Your task to perform on an android device: Open sound settings Image 0: 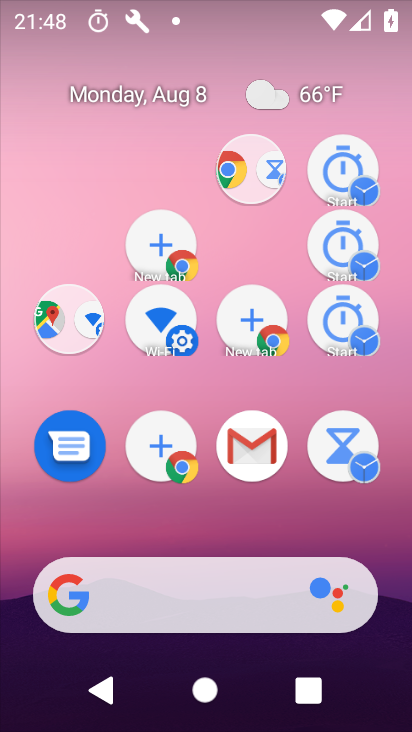
Step 0: press back button
Your task to perform on an android device: Open sound settings Image 1: 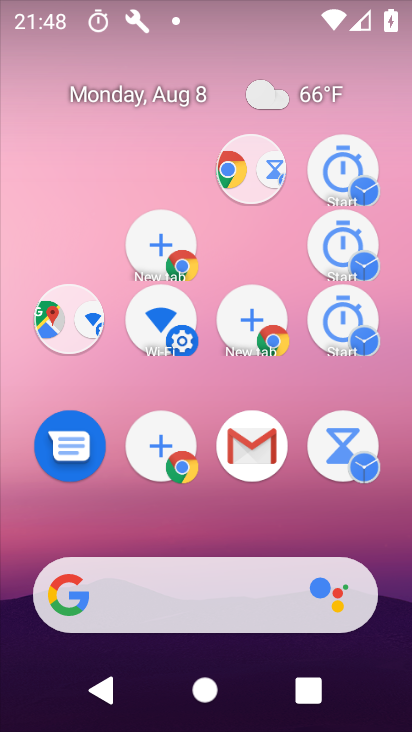
Step 1: drag from (166, 2) to (195, 143)
Your task to perform on an android device: Open sound settings Image 2: 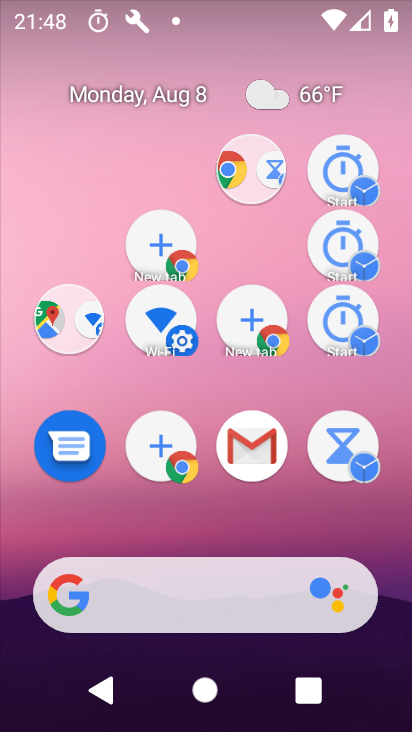
Step 2: drag from (269, 425) to (222, 83)
Your task to perform on an android device: Open sound settings Image 3: 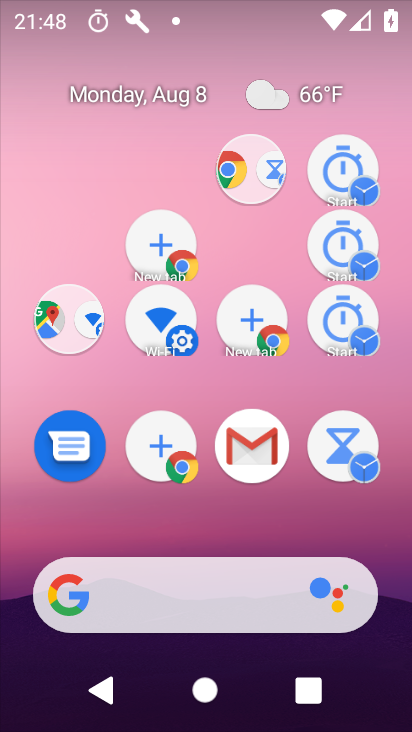
Step 3: drag from (260, 529) to (230, 120)
Your task to perform on an android device: Open sound settings Image 4: 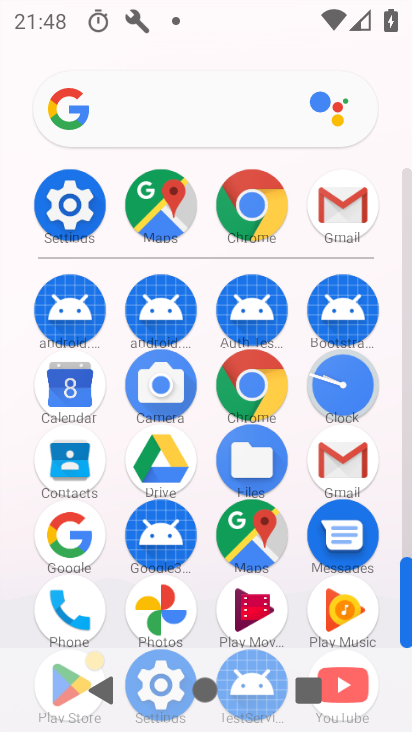
Step 4: drag from (272, 422) to (253, 80)
Your task to perform on an android device: Open sound settings Image 5: 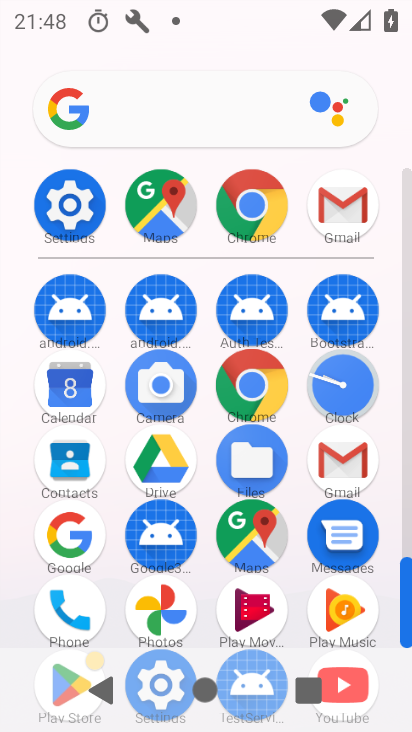
Step 5: drag from (310, 478) to (242, 58)
Your task to perform on an android device: Open sound settings Image 6: 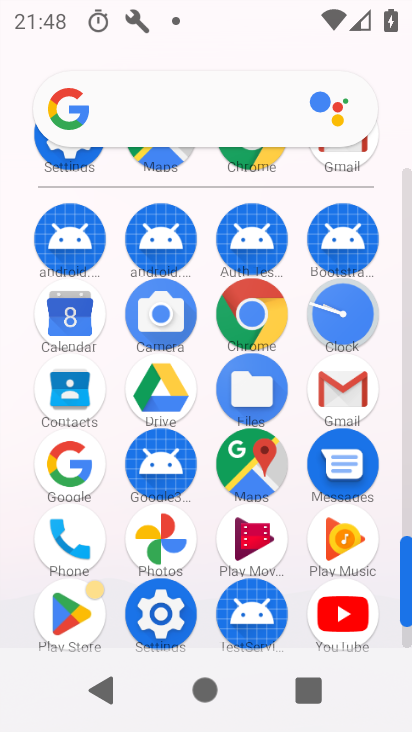
Step 6: click (63, 201)
Your task to perform on an android device: Open sound settings Image 7: 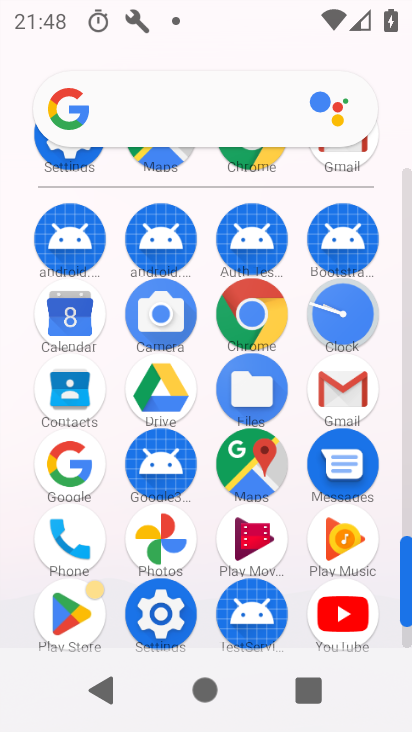
Step 7: click (156, 609)
Your task to perform on an android device: Open sound settings Image 8: 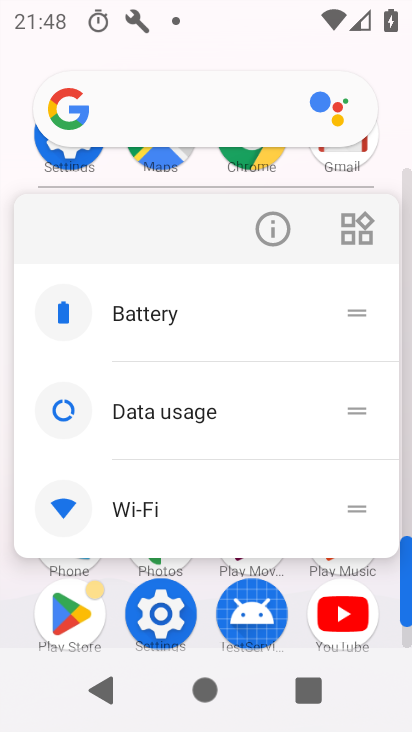
Step 8: click (161, 613)
Your task to perform on an android device: Open sound settings Image 9: 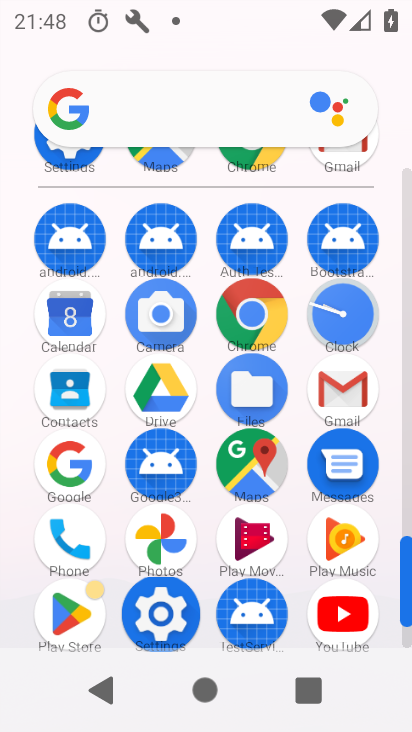
Step 9: click (162, 613)
Your task to perform on an android device: Open sound settings Image 10: 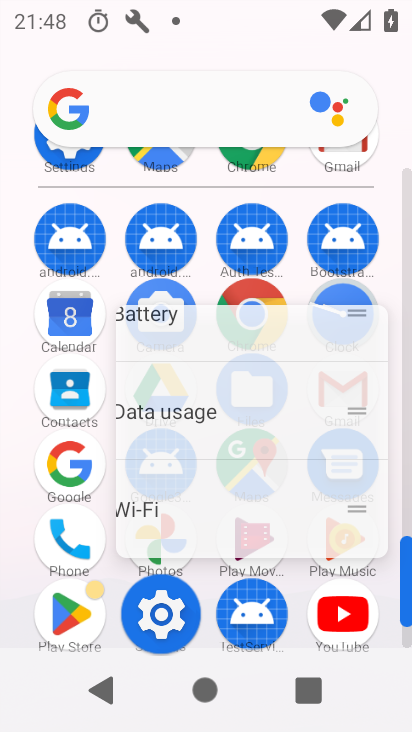
Step 10: click (164, 614)
Your task to perform on an android device: Open sound settings Image 11: 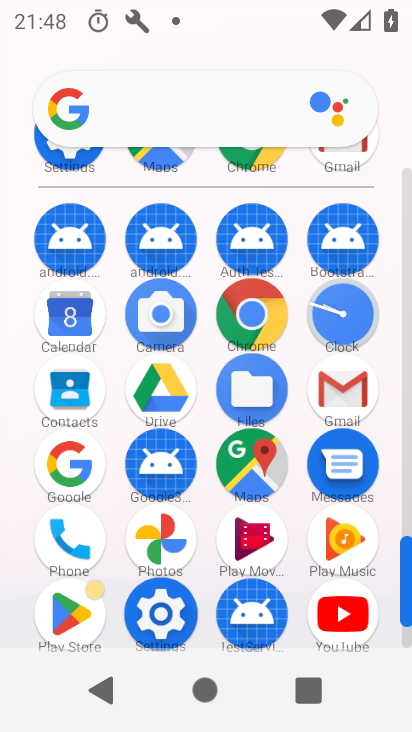
Step 11: click (166, 614)
Your task to perform on an android device: Open sound settings Image 12: 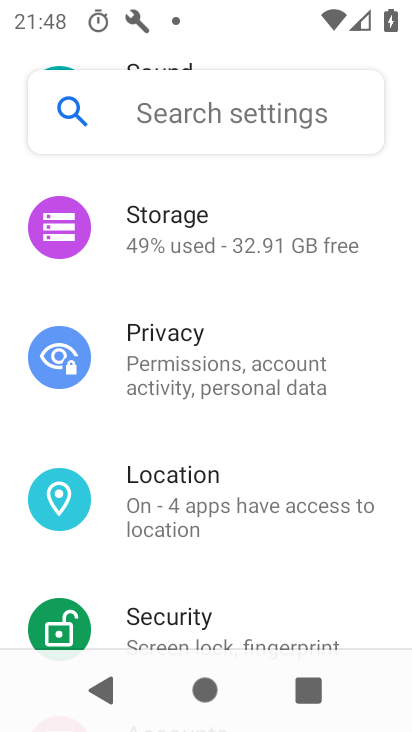
Step 12: click (169, 617)
Your task to perform on an android device: Open sound settings Image 13: 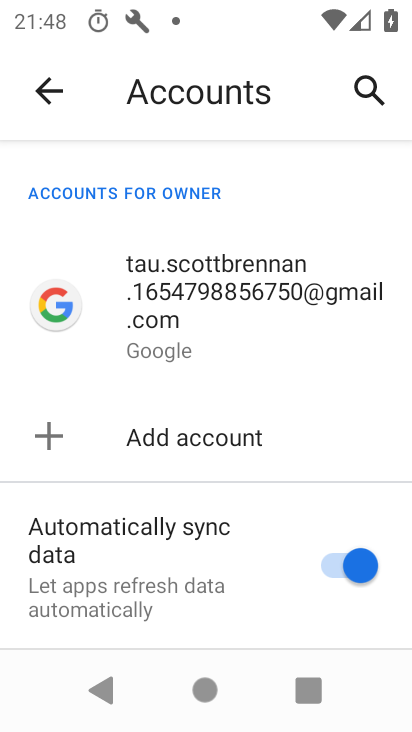
Step 13: click (32, 76)
Your task to perform on an android device: Open sound settings Image 14: 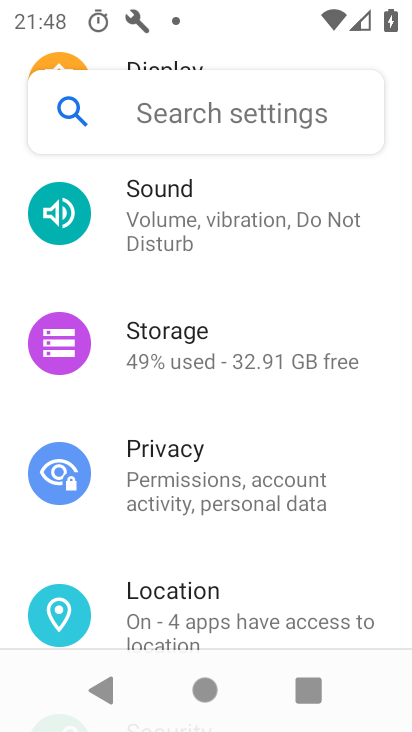
Step 14: click (155, 220)
Your task to perform on an android device: Open sound settings Image 15: 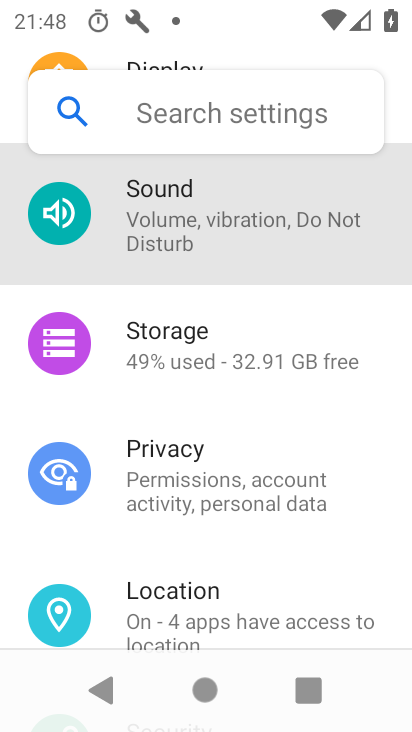
Step 15: click (155, 220)
Your task to perform on an android device: Open sound settings Image 16: 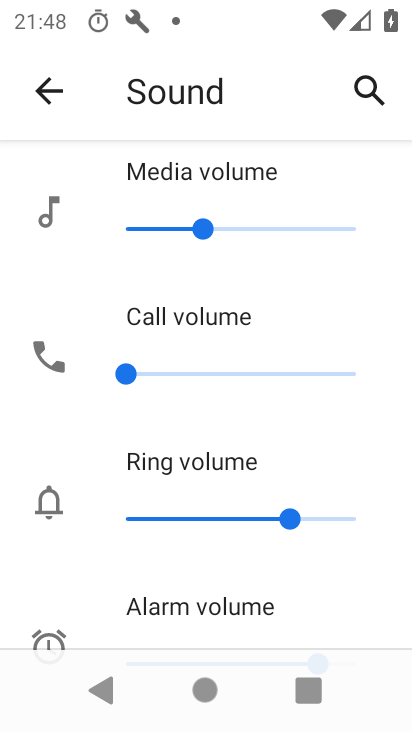
Step 16: task complete